Your task to perform on an android device: change keyboard looks Image 0: 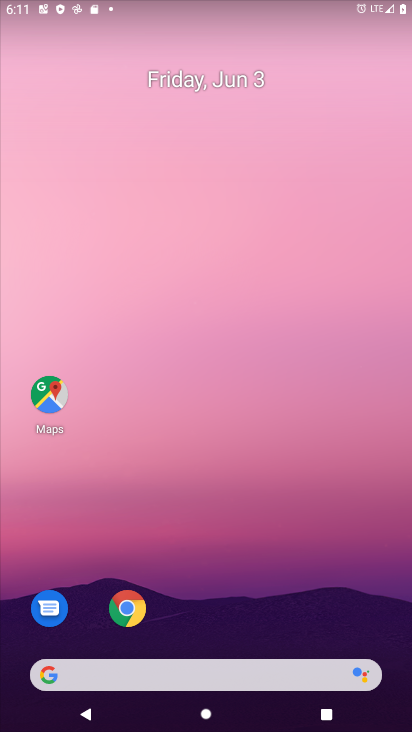
Step 0: drag from (168, 165) to (314, 126)
Your task to perform on an android device: change keyboard looks Image 1: 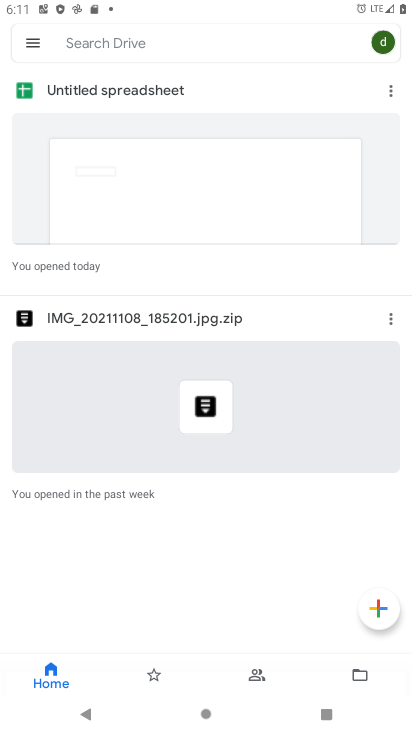
Step 1: press home button
Your task to perform on an android device: change keyboard looks Image 2: 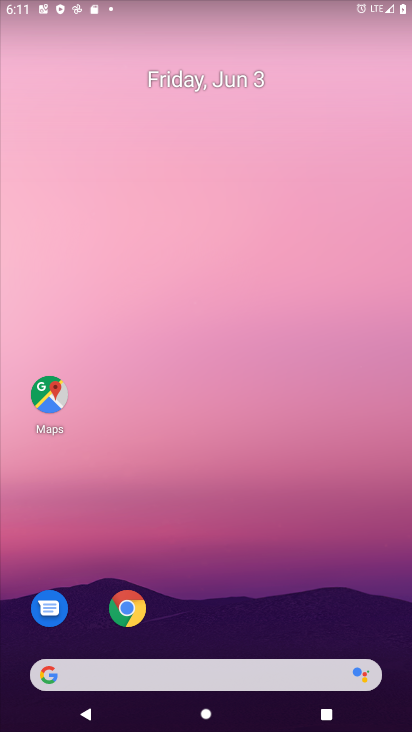
Step 2: drag from (337, 478) to (346, 183)
Your task to perform on an android device: change keyboard looks Image 3: 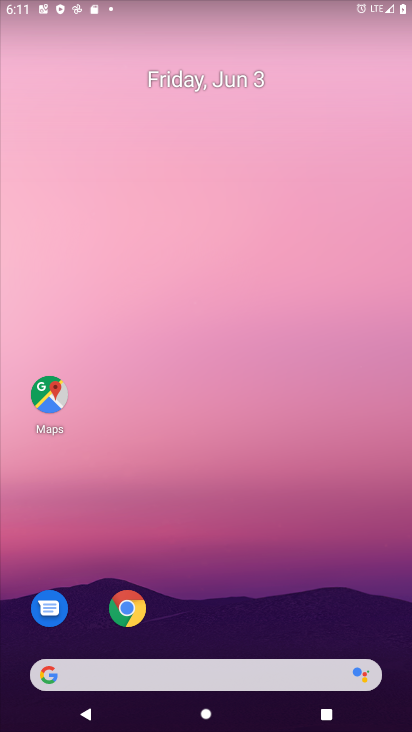
Step 3: drag from (313, 616) to (331, 366)
Your task to perform on an android device: change keyboard looks Image 4: 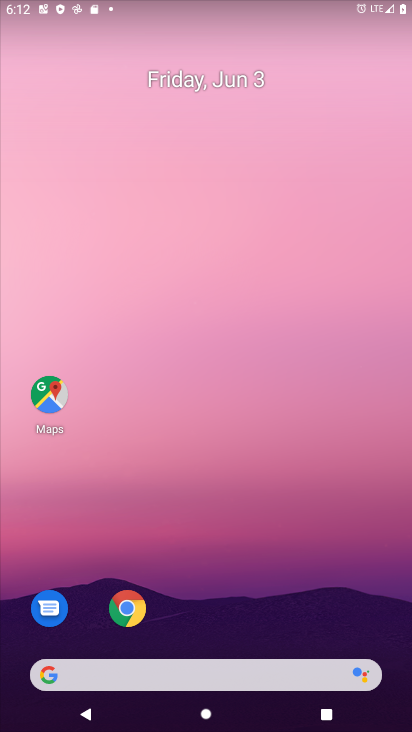
Step 4: drag from (297, 582) to (310, 289)
Your task to perform on an android device: change keyboard looks Image 5: 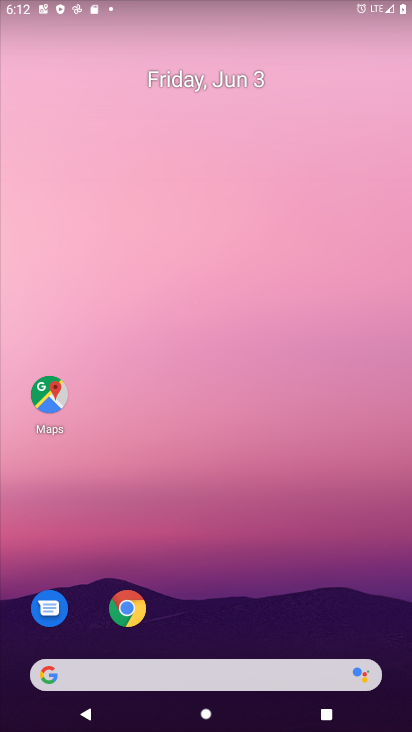
Step 5: drag from (309, 337) to (333, 39)
Your task to perform on an android device: change keyboard looks Image 6: 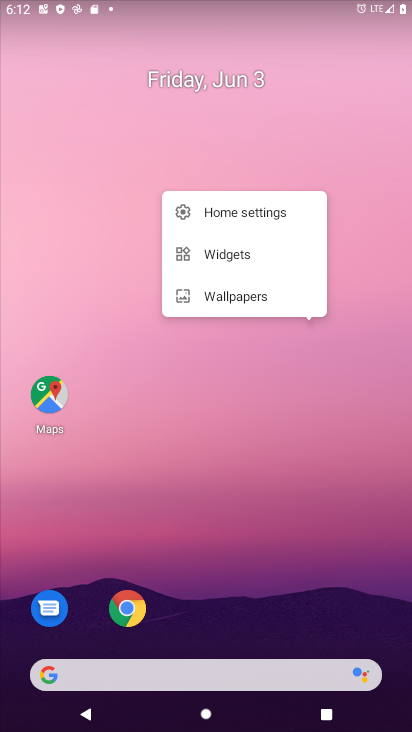
Step 6: click (327, 166)
Your task to perform on an android device: change keyboard looks Image 7: 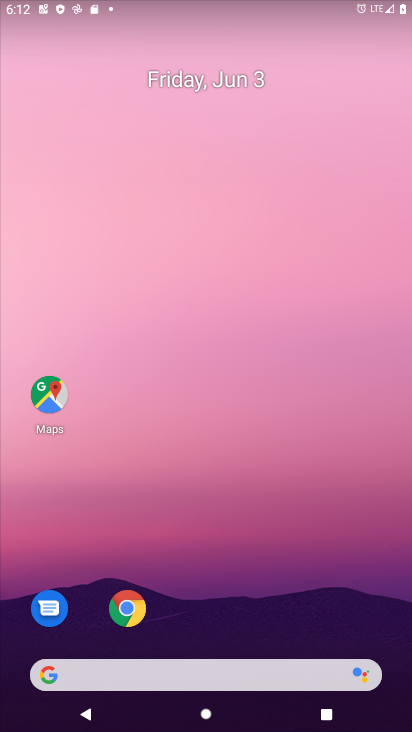
Step 7: drag from (280, 276) to (279, 47)
Your task to perform on an android device: change keyboard looks Image 8: 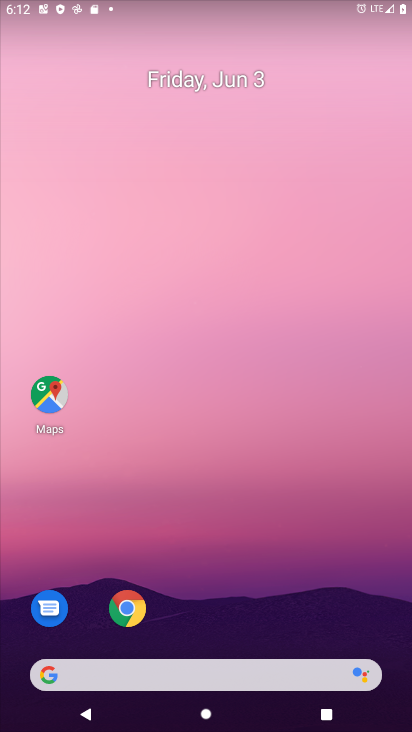
Step 8: drag from (229, 684) to (254, 43)
Your task to perform on an android device: change keyboard looks Image 9: 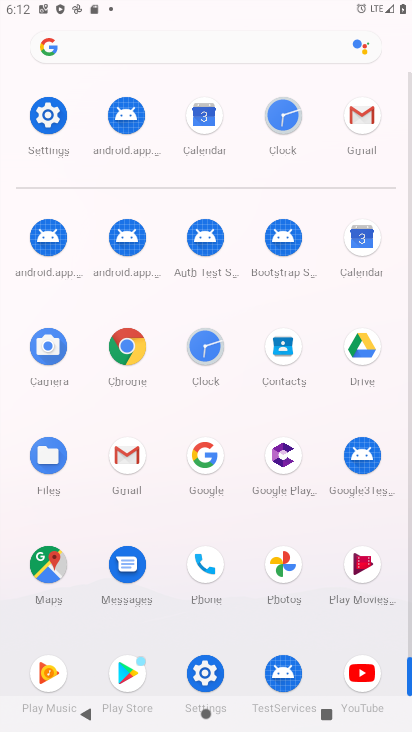
Step 9: click (47, 120)
Your task to perform on an android device: change keyboard looks Image 10: 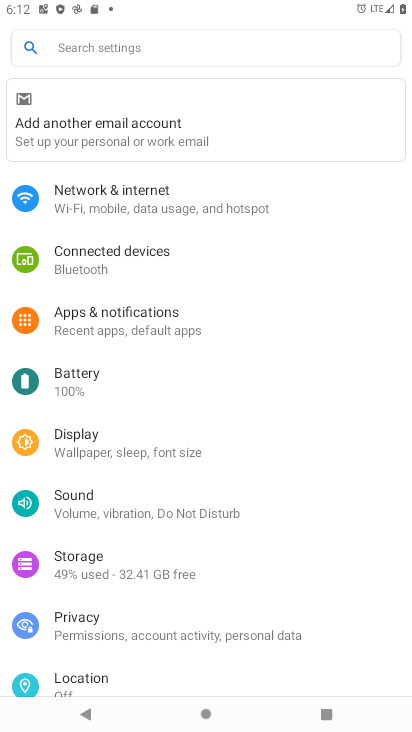
Step 10: drag from (154, 397) to (154, 157)
Your task to perform on an android device: change keyboard looks Image 11: 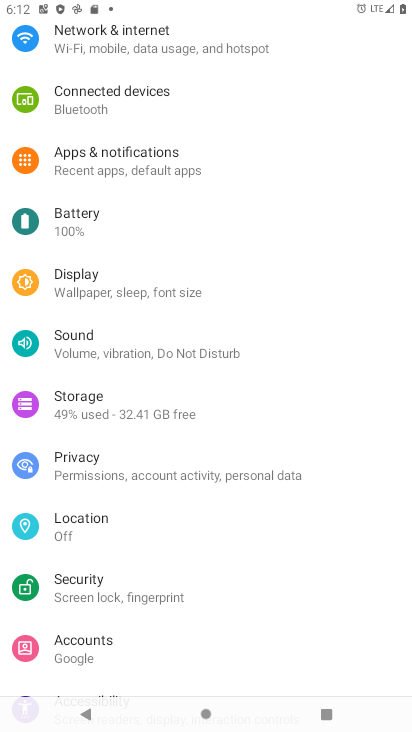
Step 11: drag from (149, 537) to (194, 163)
Your task to perform on an android device: change keyboard looks Image 12: 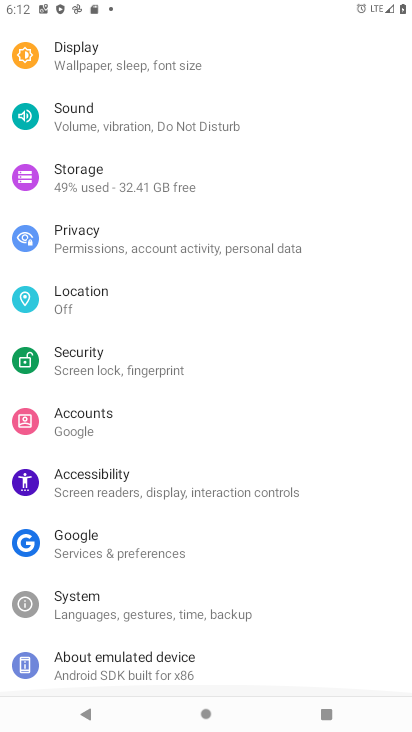
Step 12: click (175, 457)
Your task to perform on an android device: change keyboard looks Image 13: 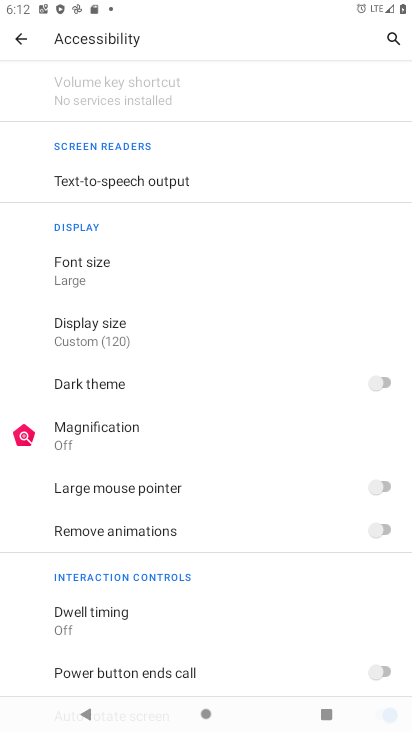
Step 13: task complete